Your task to perform on an android device: delete the emails in spam in the gmail app Image 0: 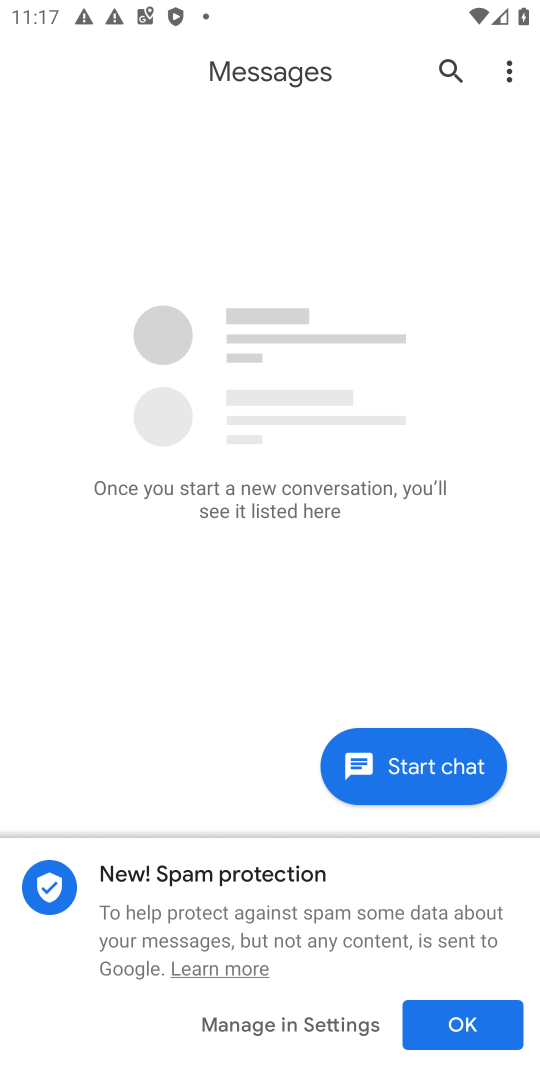
Step 0: press home button
Your task to perform on an android device: delete the emails in spam in the gmail app Image 1: 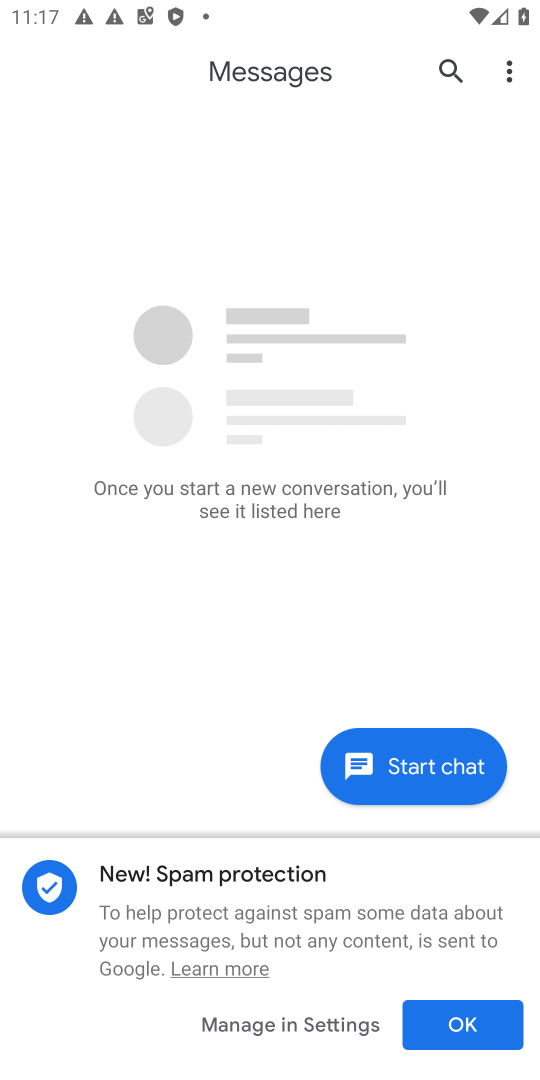
Step 1: press home button
Your task to perform on an android device: delete the emails in spam in the gmail app Image 2: 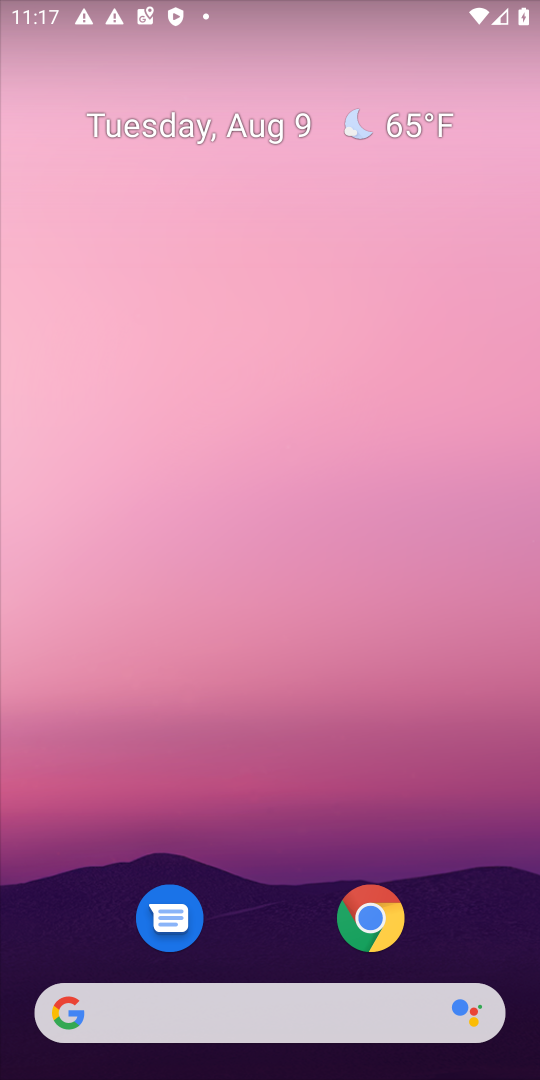
Step 2: drag from (262, 929) to (333, 196)
Your task to perform on an android device: delete the emails in spam in the gmail app Image 3: 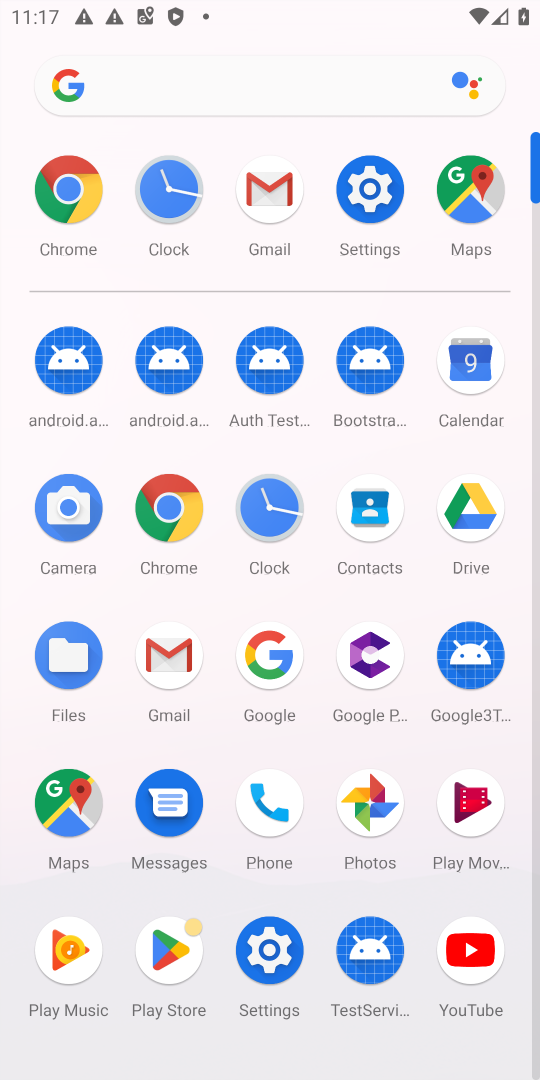
Step 3: click (173, 651)
Your task to perform on an android device: delete the emails in spam in the gmail app Image 4: 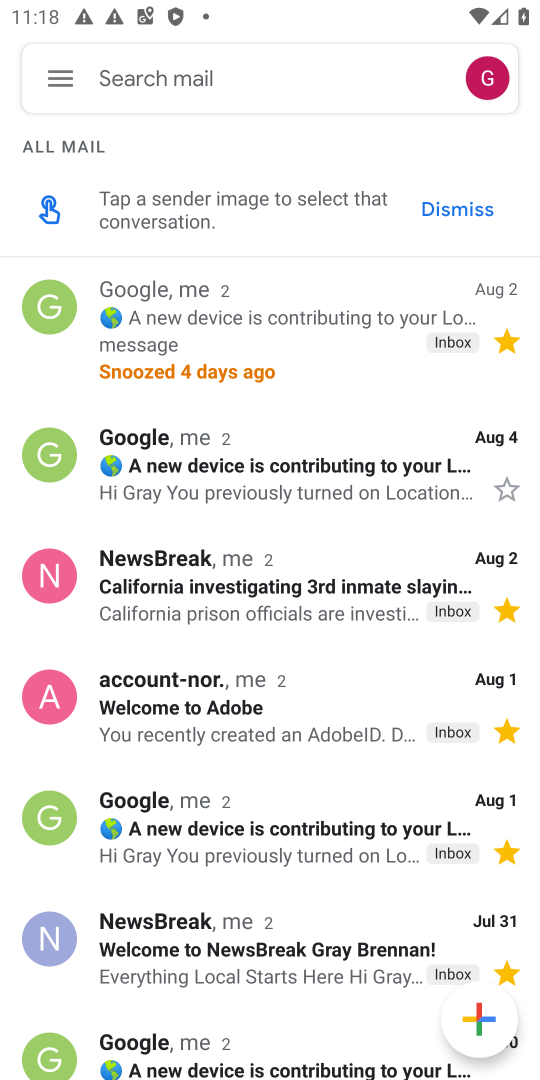
Step 4: click (63, 92)
Your task to perform on an android device: delete the emails in spam in the gmail app Image 5: 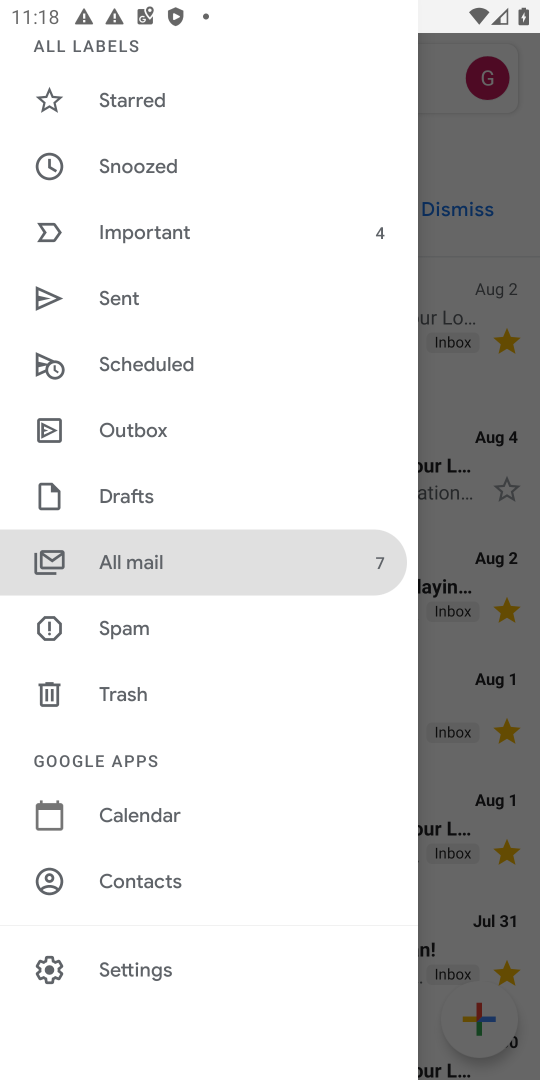
Step 5: click (122, 647)
Your task to perform on an android device: delete the emails in spam in the gmail app Image 6: 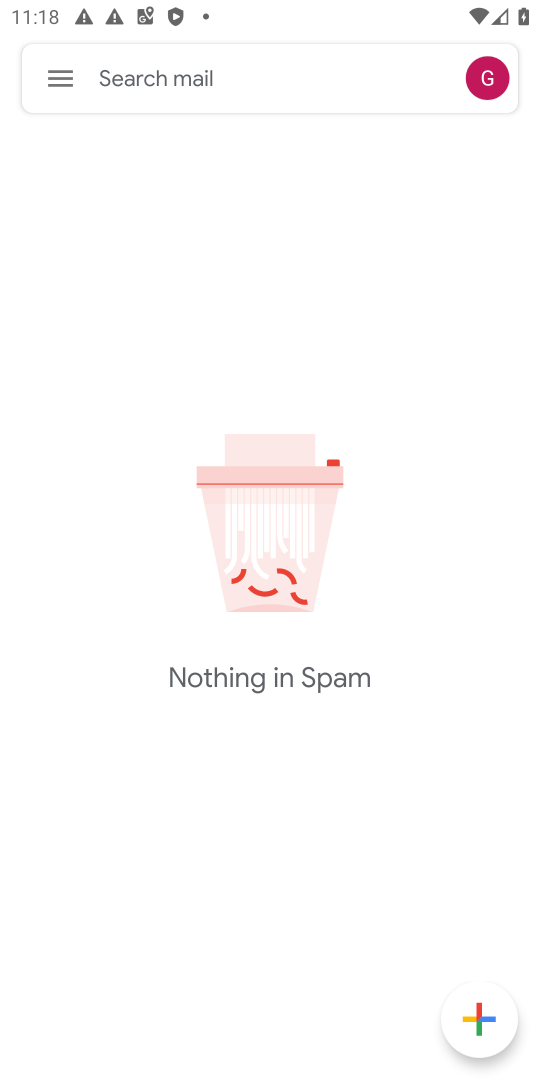
Step 6: task complete